Your task to perform on an android device: toggle wifi Image 0: 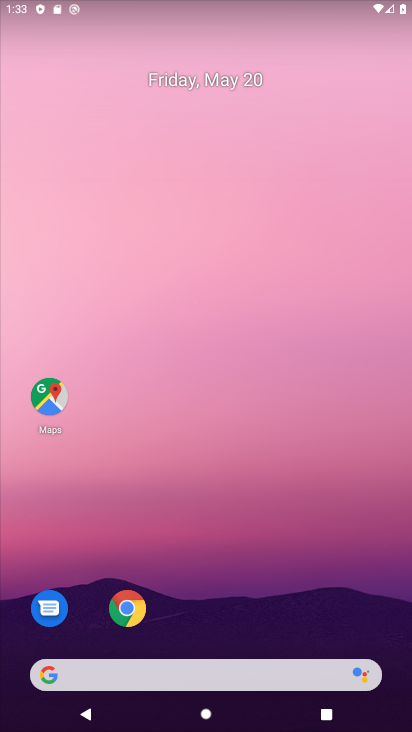
Step 0: drag from (235, 388) to (235, 156)
Your task to perform on an android device: toggle wifi Image 1: 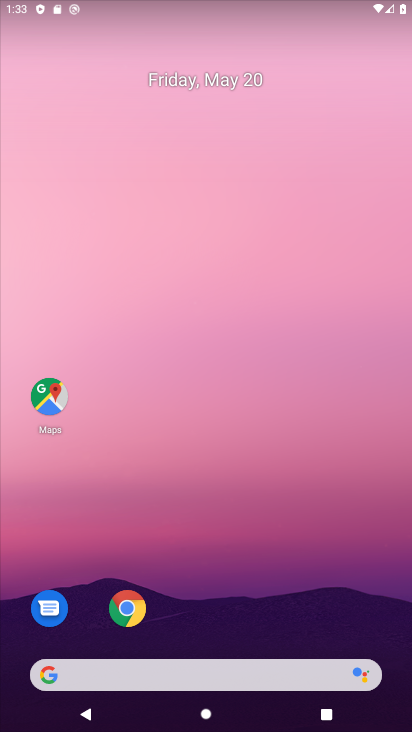
Step 1: drag from (253, 581) to (261, 120)
Your task to perform on an android device: toggle wifi Image 2: 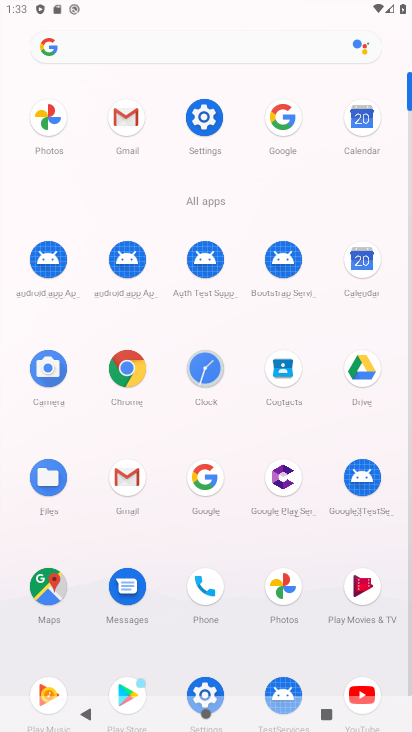
Step 2: click (211, 119)
Your task to perform on an android device: toggle wifi Image 3: 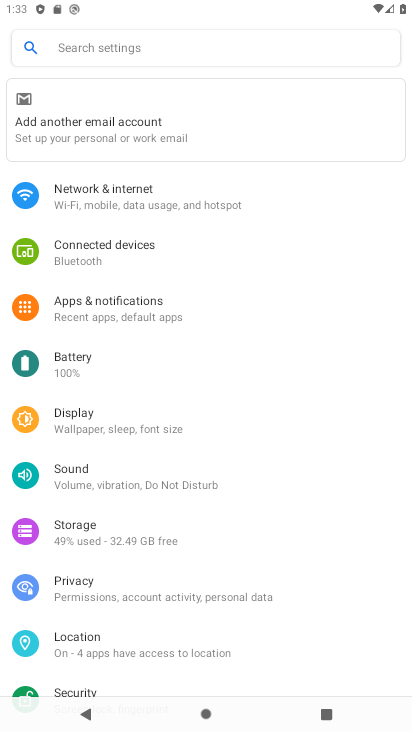
Step 3: click (167, 204)
Your task to perform on an android device: toggle wifi Image 4: 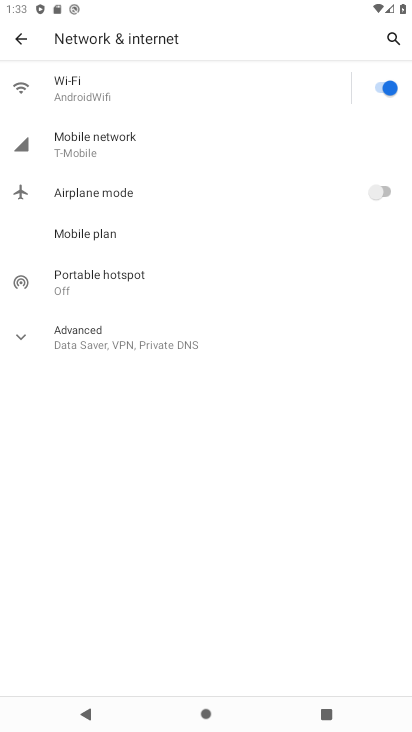
Step 4: click (388, 84)
Your task to perform on an android device: toggle wifi Image 5: 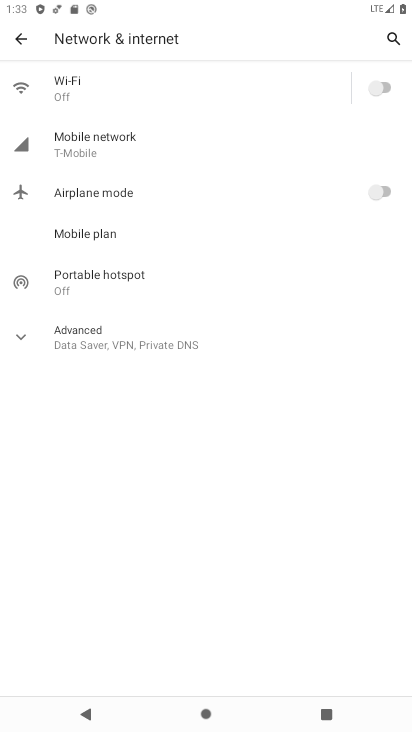
Step 5: task complete